Your task to perform on an android device: change notifications settings Image 0: 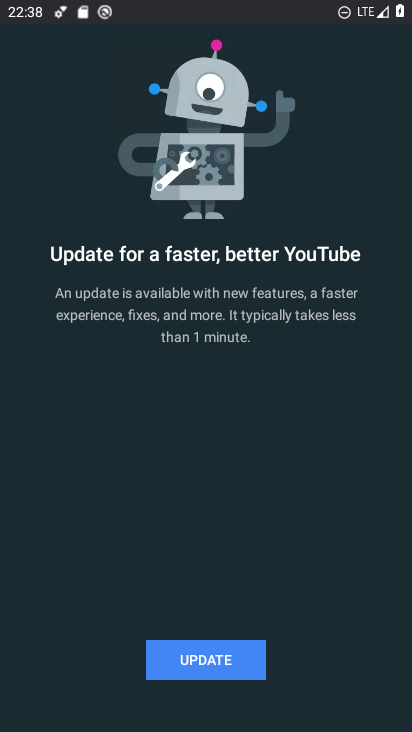
Step 0: press home button
Your task to perform on an android device: change notifications settings Image 1: 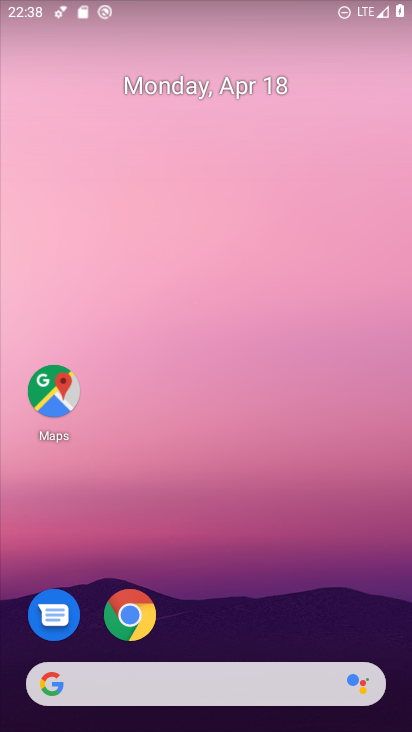
Step 1: drag from (327, 636) to (355, 4)
Your task to perform on an android device: change notifications settings Image 2: 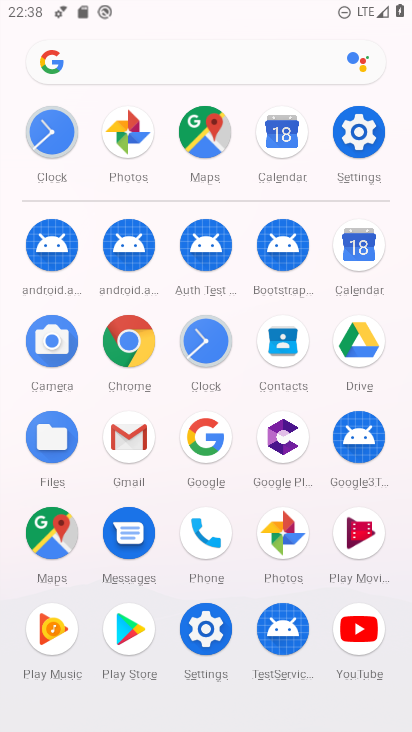
Step 2: click (352, 142)
Your task to perform on an android device: change notifications settings Image 3: 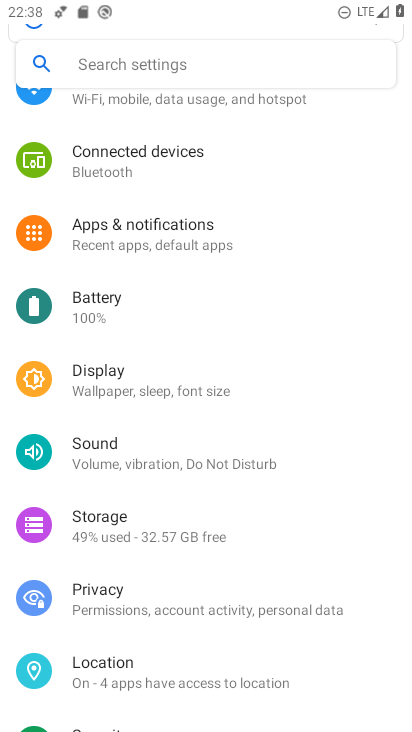
Step 3: click (172, 241)
Your task to perform on an android device: change notifications settings Image 4: 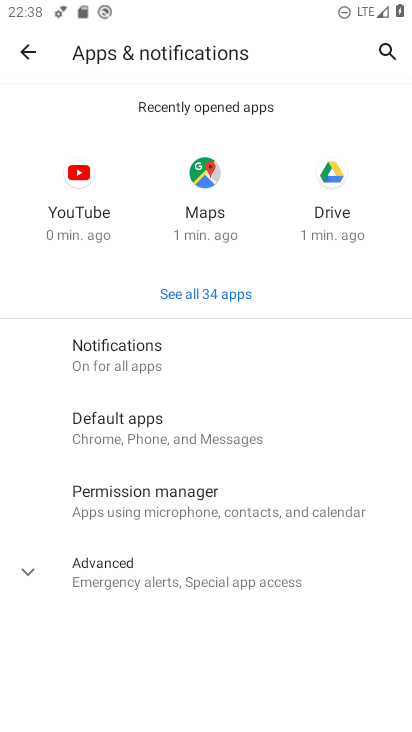
Step 4: click (108, 366)
Your task to perform on an android device: change notifications settings Image 5: 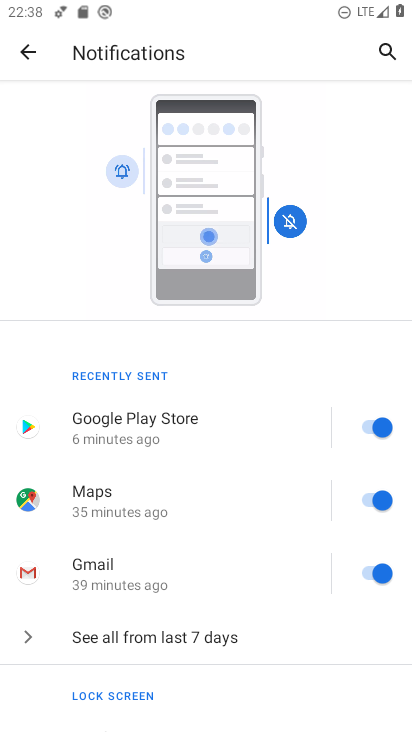
Step 5: drag from (208, 529) to (214, 204)
Your task to perform on an android device: change notifications settings Image 6: 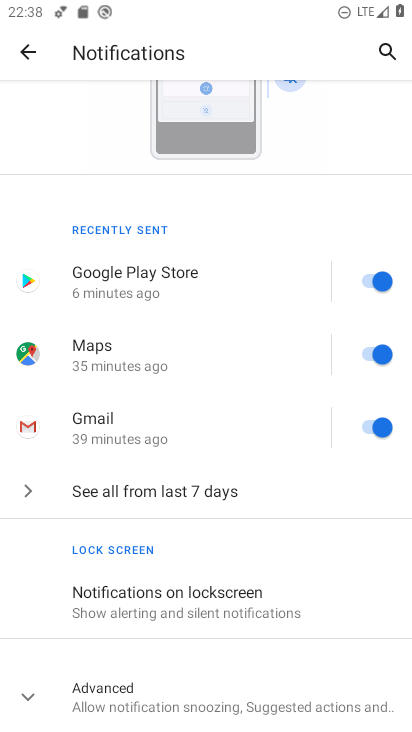
Step 6: drag from (188, 496) to (182, 244)
Your task to perform on an android device: change notifications settings Image 7: 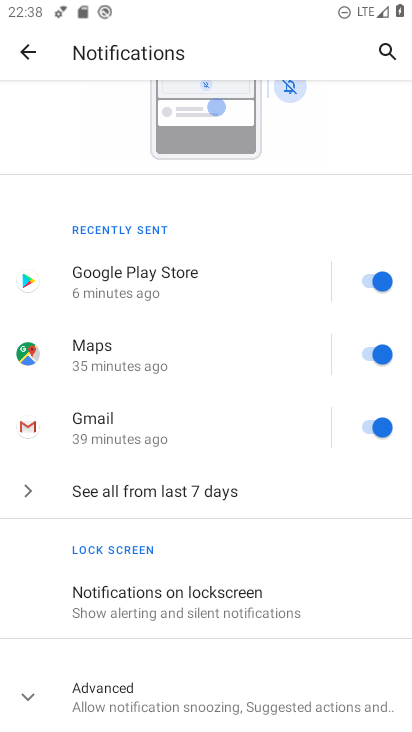
Step 7: click (143, 495)
Your task to perform on an android device: change notifications settings Image 8: 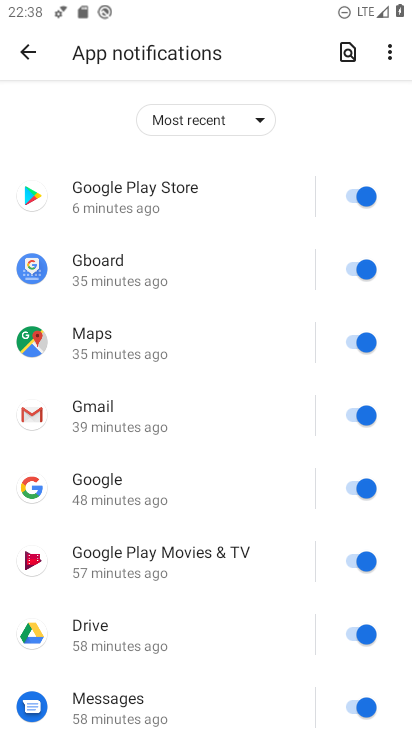
Step 8: click (263, 123)
Your task to perform on an android device: change notifications settings Image 9: 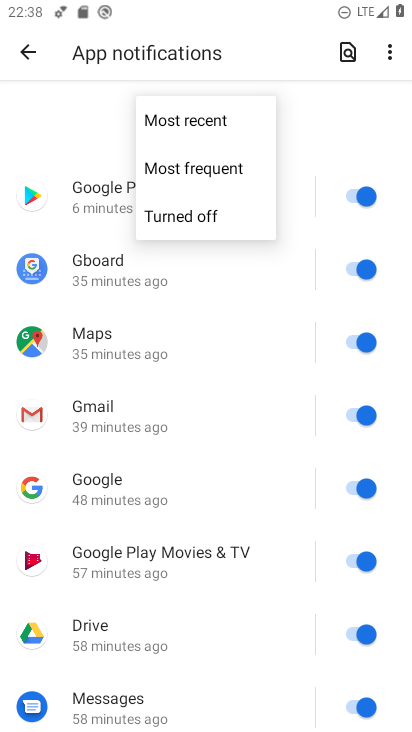
Step 9: click (183, 170)
Your task to perform on an android device: change notifications settings Image 10: 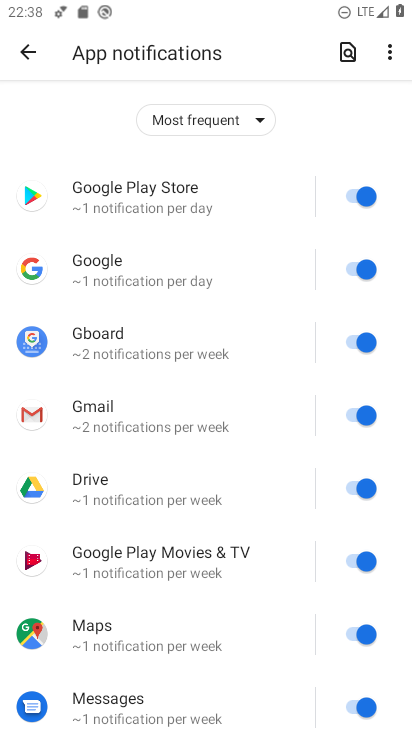
Step 10: task complete